Your task to perform on an android device: find snoozed emails in the gmail app Image 0: 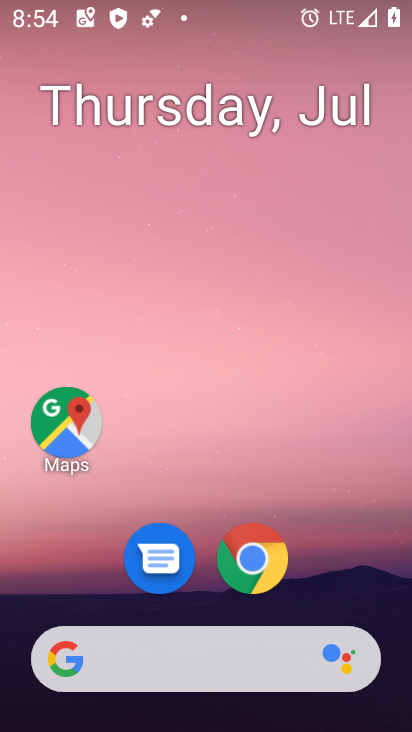
Step 0: drag from (208, 691) to (275, 237)
Your task to perform on an android device: find snoozed emails in the gmail app Image 1: 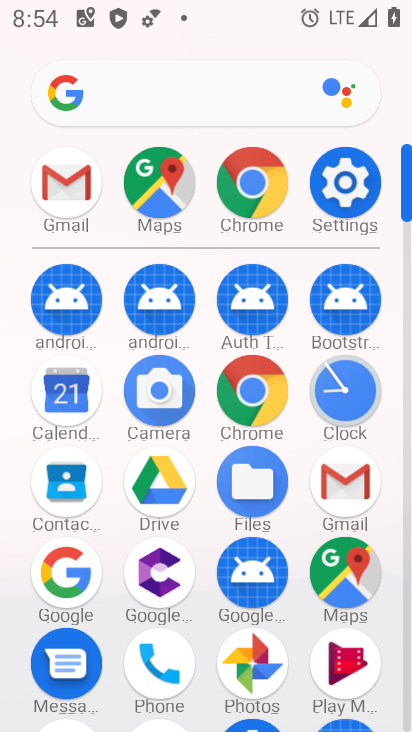
Step 1: click (343, 468)
Your task to perform on an android device: find snoozed emails in the gmail app Image 2: 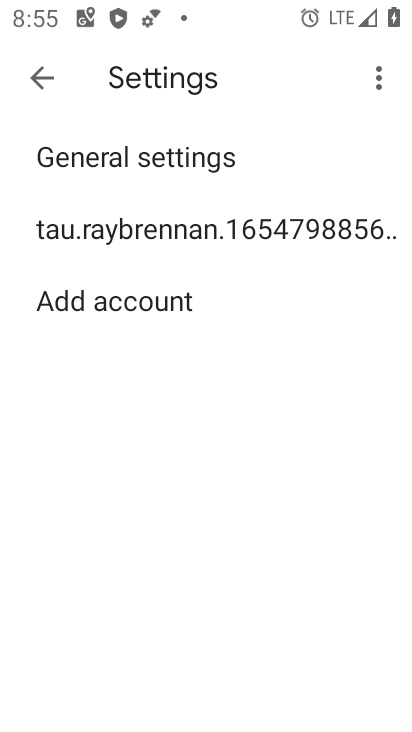
Step 2: click (64, 77)
Your task to perform on an android device: find snoozed emails in the gmail app Image 3: 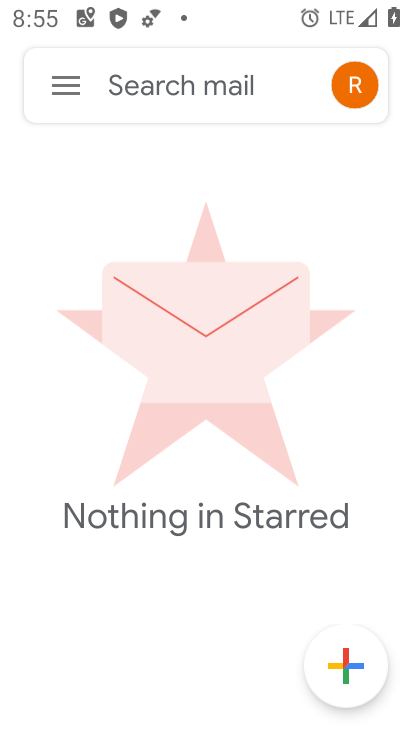
Step 3: click (64, 77)
Your task to perform on an android device: find snoozed emails in the gmail app Image 4: 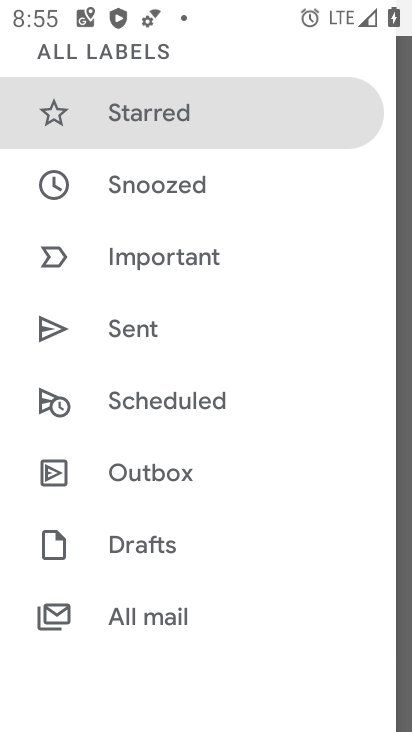
Step 4: click (129, 203)
Your task to perform on an android device: find snoozed emails in the gmail app Image 5: 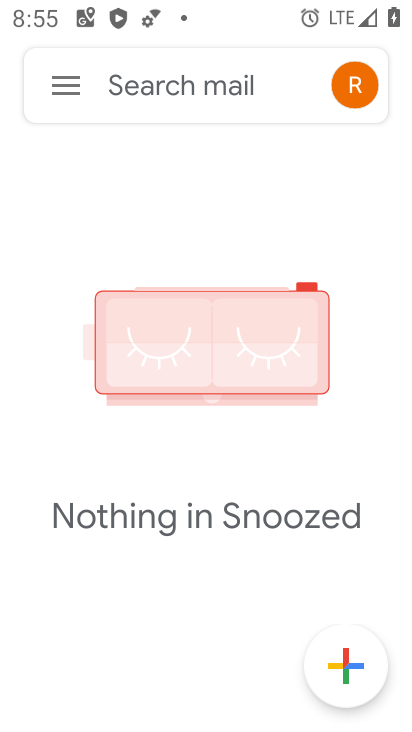
Step 5: task complete